Your task to perform on an android device: Open Reddit.com Image 0: 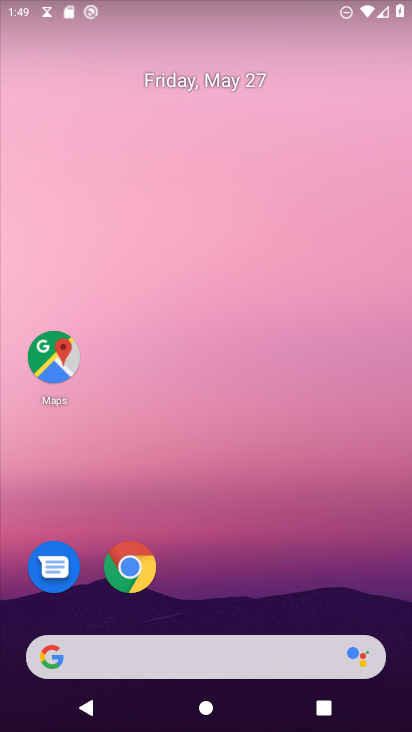
Step 0: click (138, 559)
Your task to perform on an android device: Open Reddit.com Image 1: 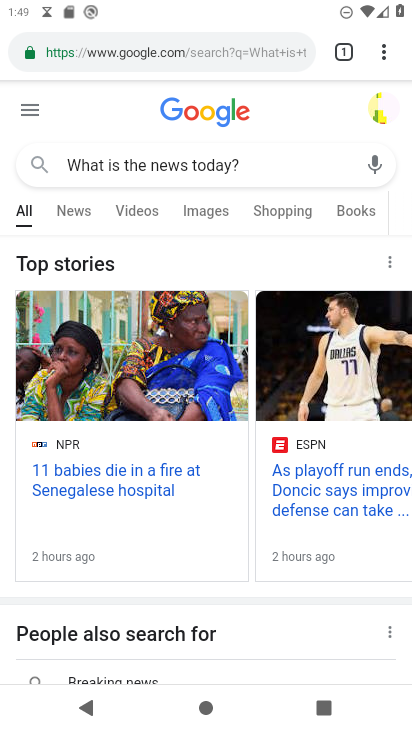
Step 1: click (214, 48)
Your task to perform on an android device: Open Reddit.com Image 2: 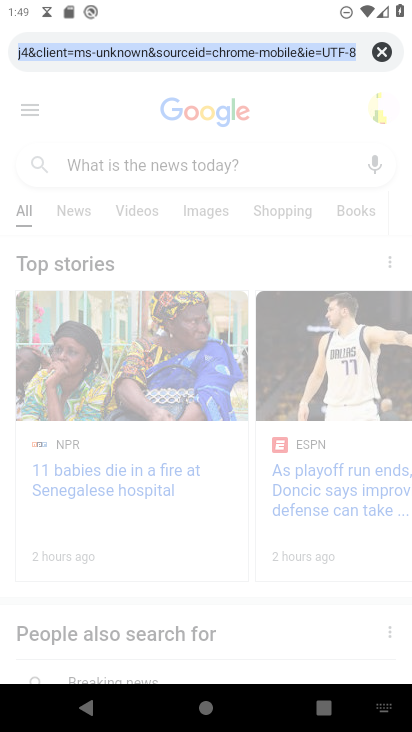
Step 2: type "Reddit.com"
Your task to perform on an android device: Open Reddit.com Image 3: 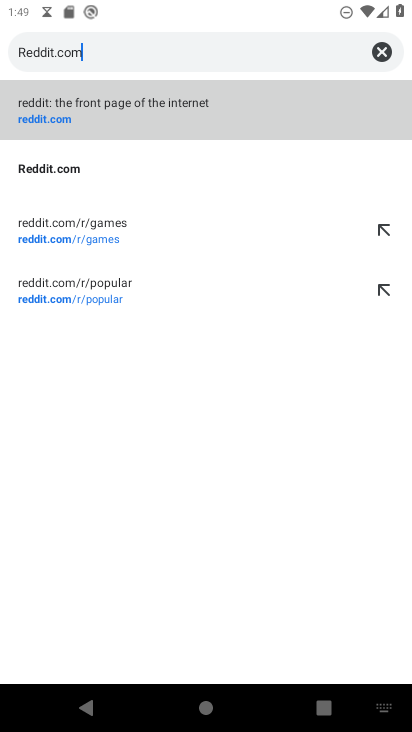
Step 3: click (45, 120)
Your task to perform on an android device: Open Reddit.com Image 4: 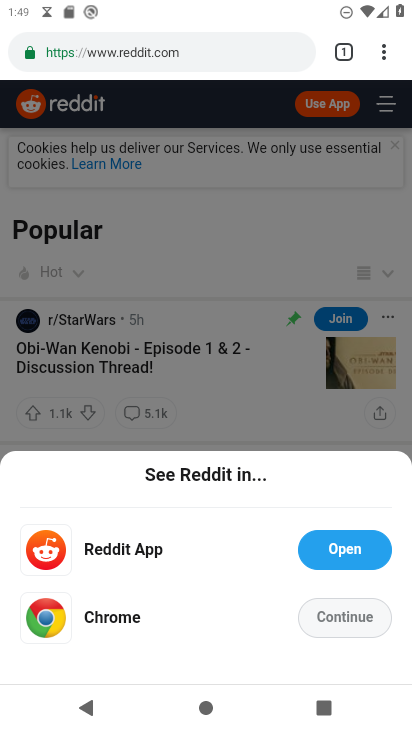
Step 4: task complete